Your task to perform on an android device: Go to notification settings Image 0: 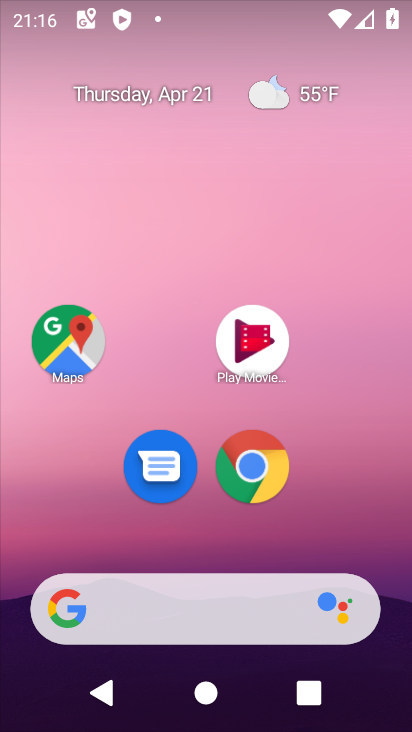
Step 0: drag from (319, 497) to (323, 150)
Your task to perform on an android device: Go to notification settings Image 1: 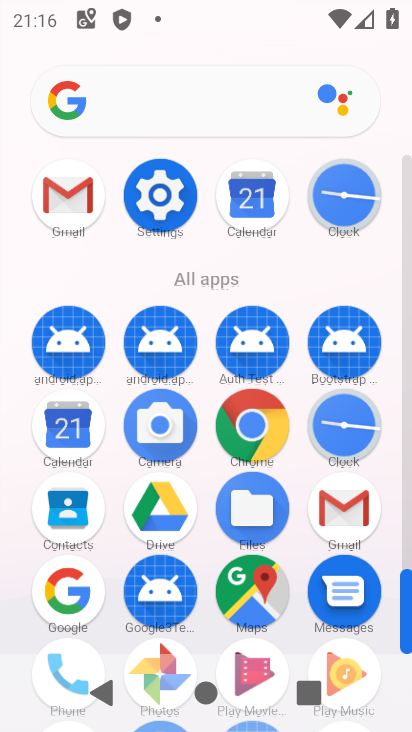
Step 1: click (164, 221)
Your task to perform on an android device: Go to notification settings Image 2: 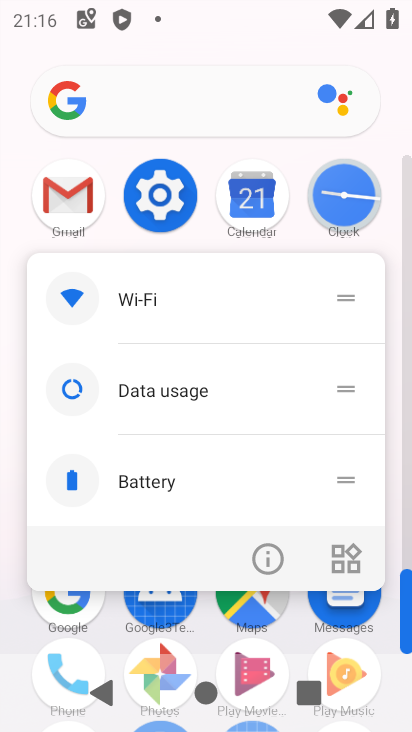
Step 2: click (160, 193)
Your task to perform on an android device: Go to notification settings Image 3: 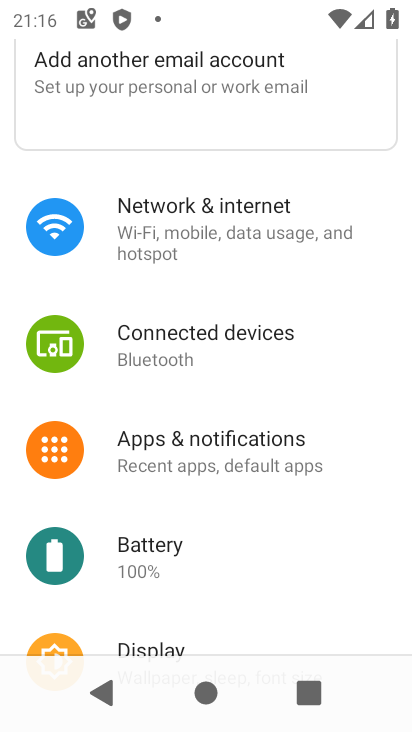
Step 3: click (256, 462)
Your task to perform on an android device: Go to notification settings Image 4: 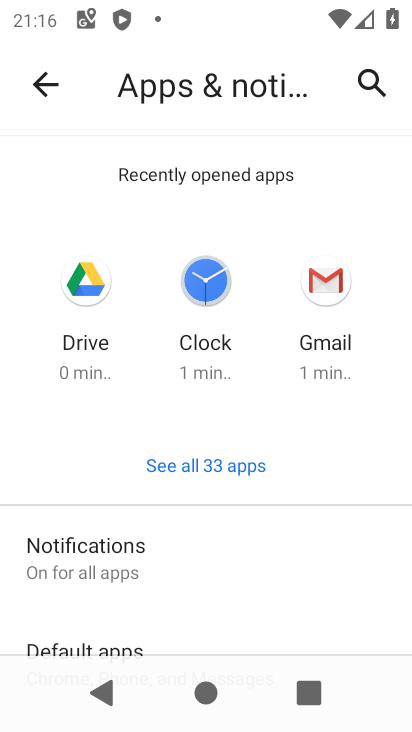
Step 4: click (117, 566)
Your task to perform on an android device: Go to notification settings Image 5: 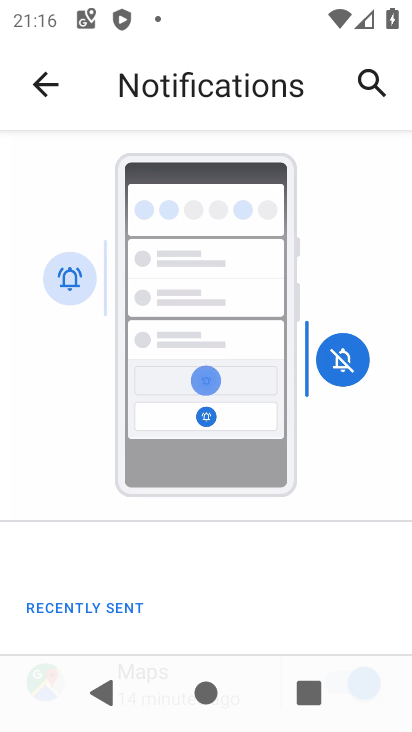
Step 5: task complete